Your task to perform on an android device: Open Chrome and go to the settings page Image 0: 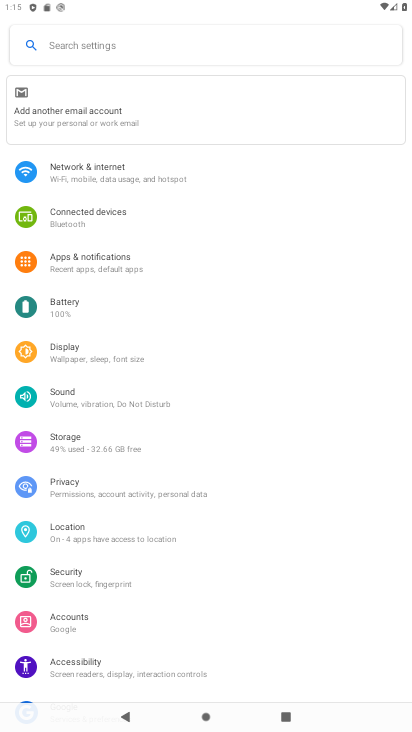
Step 0: task complete